Your task to perform on an android device: Go to Google maps Image 0: 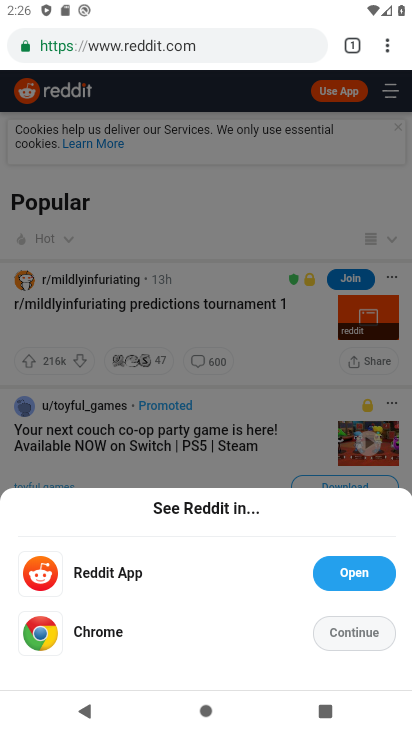
Step 0: press home button
Your task to perform on an android device: Go to Google maps Image 1: 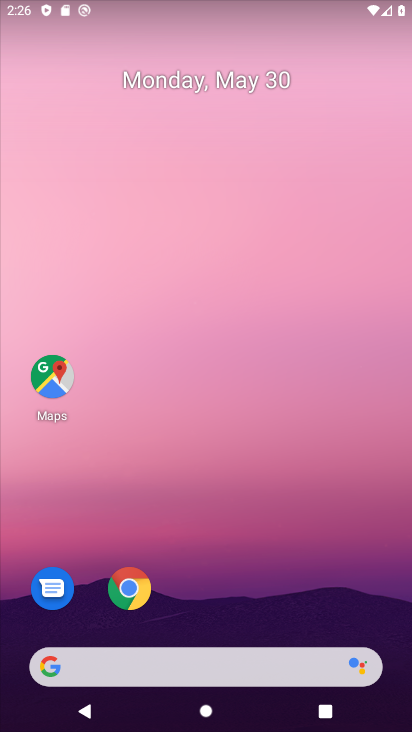
Step 1: click (52, 369)
Your task to perform on an android device: Go to Google maps Image 2: 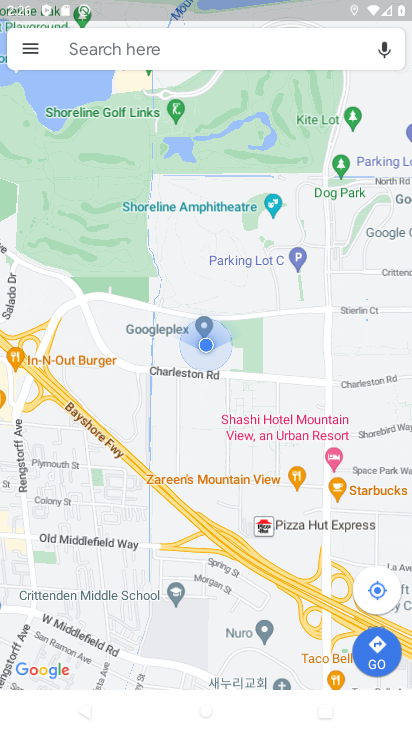
Step 2: task complete